Your task to perform on an android device: How do I get to the nearest Starbucks? Image 0: 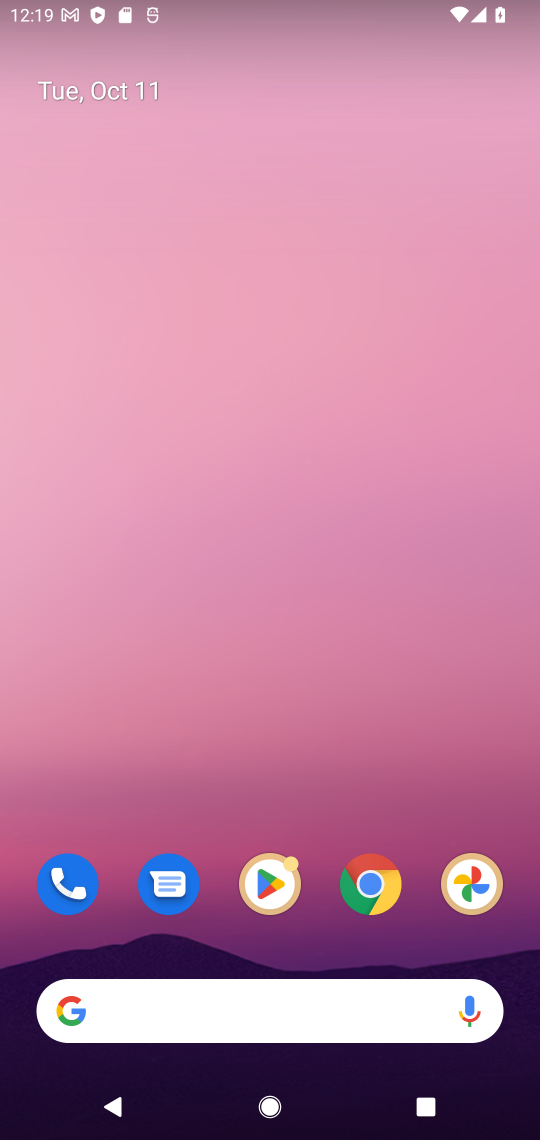
Step 0: drag from (319, 1049) to (224, 348)
Your task to perform on an android device: How do I get to the nearest Starbucks? Image 1: 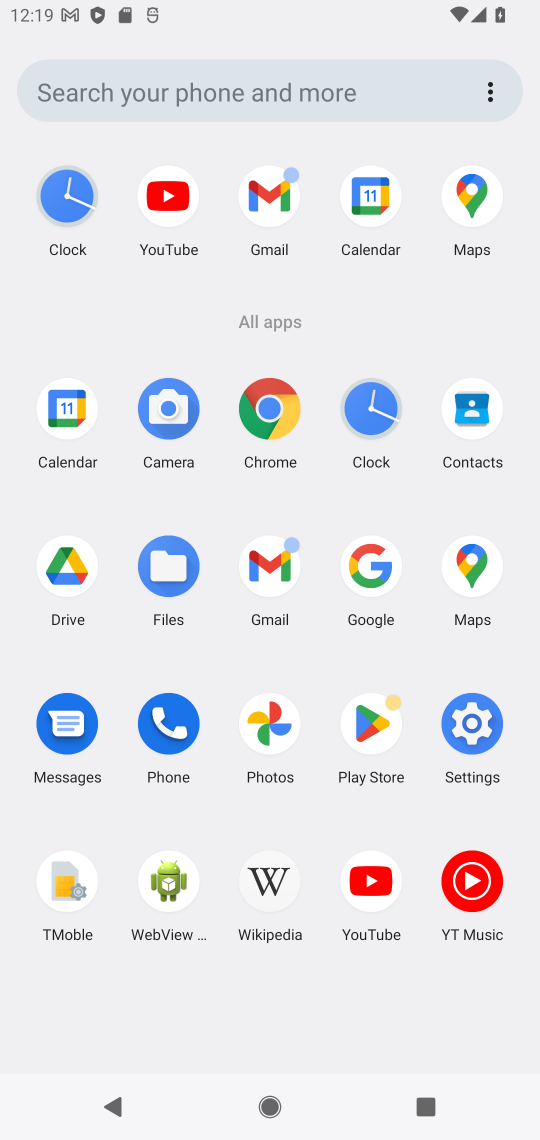
Step 1: click (369, 584)
Your task to perform on an android device: How do I get to the nearest Starbucks? Image 2: 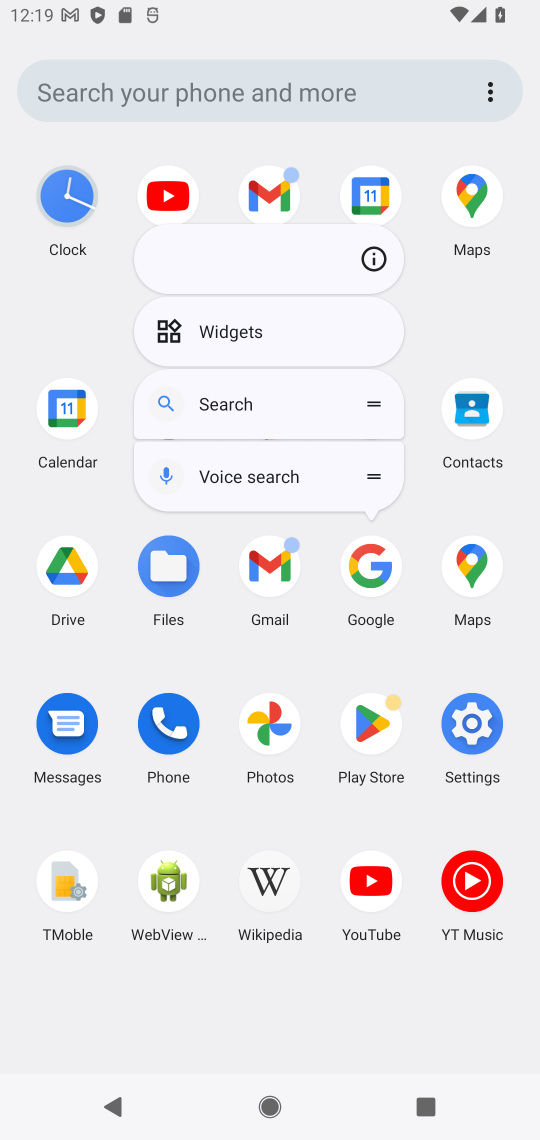
Step 2: click (366, 566)
Your task to perform on an android device: How do I get to the nearest Starbucks? Image 3: 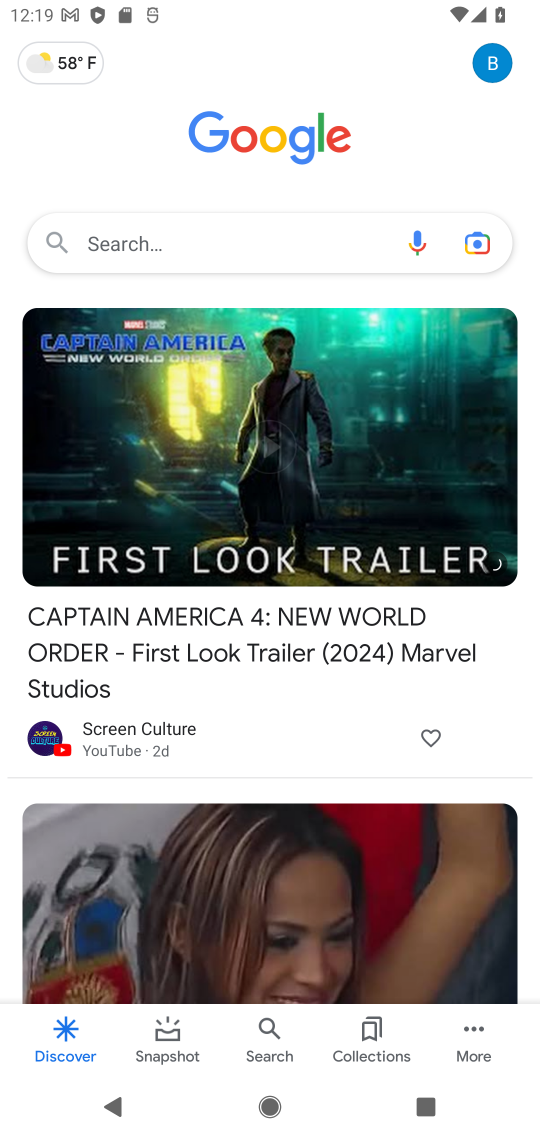
Step 3: click (197, 241)
Your task to perform on an android device: How do I get to the nearest Starbucks? Image 4: 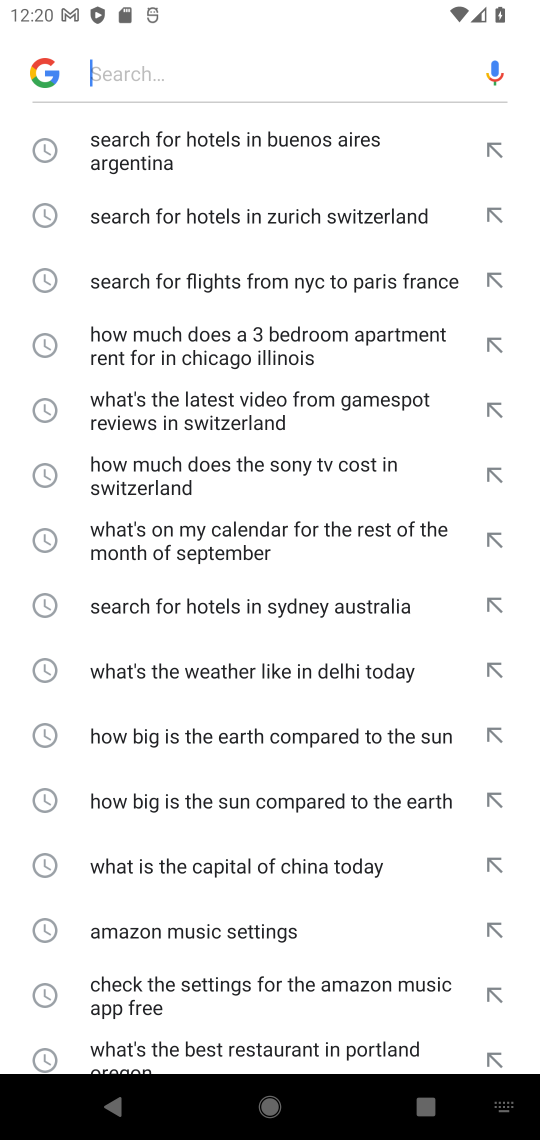
Step 4: type "How do I get to the nearest Starbucks?"
Your task to perform on an android device: How do I get to the nearest Starbucks? Image 5: 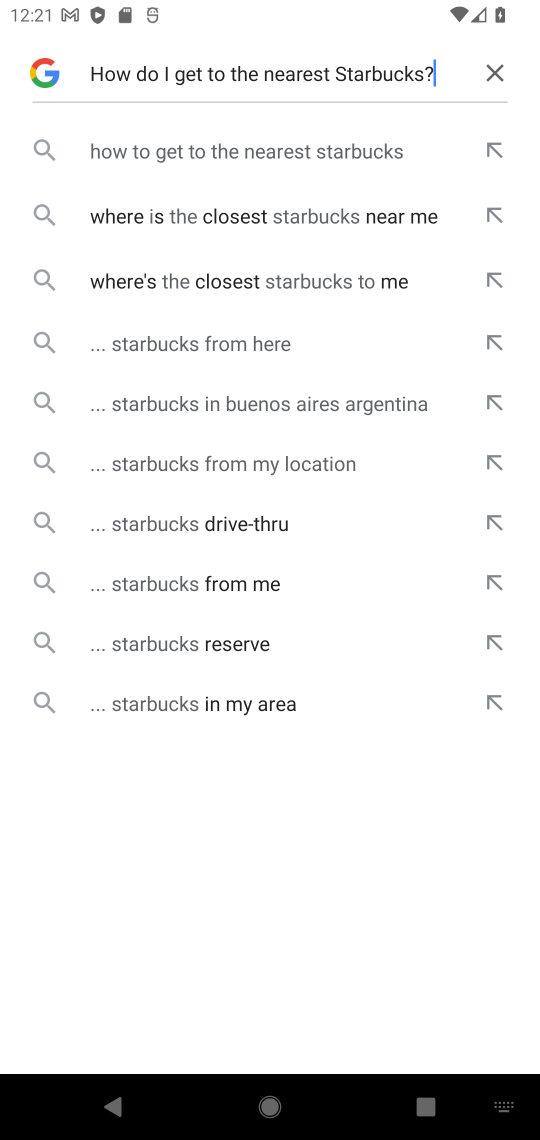
Step 5: click (347, 138)
Your task to perform on an android device: How do I get to the nearest Starbucks? Image 6: 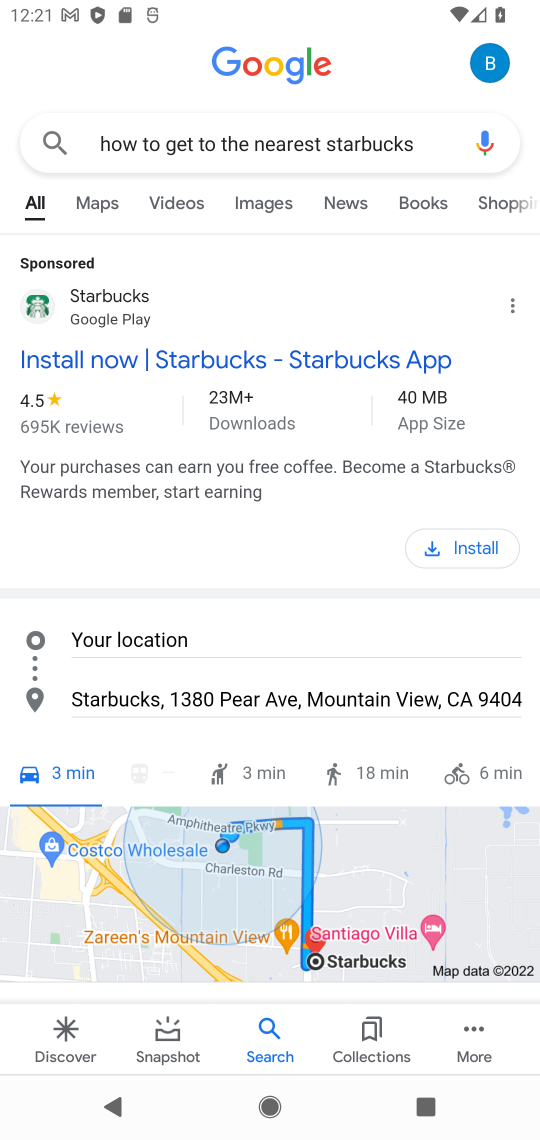
Step 6: click (157, 354)
Your task to perform on an android device: How do I get to the nearest Starbucks? Image 7: 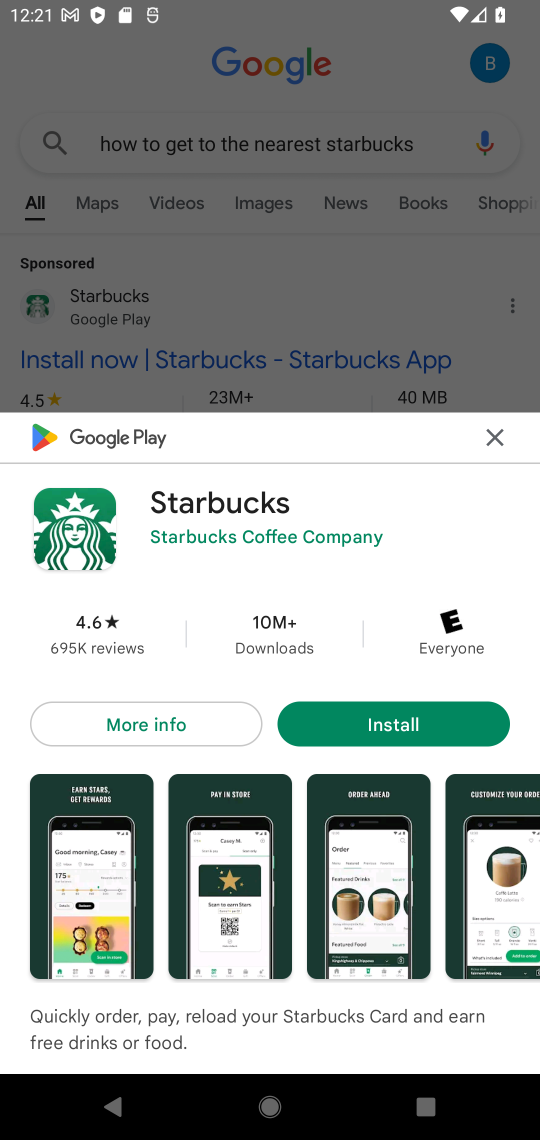
Step 7: task complete